Your task to perform on an android device: check the backup settings in the google photos Image 0: 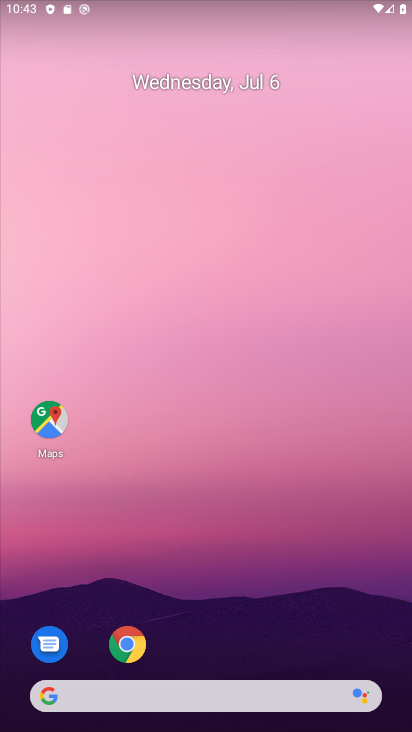
Step 0: drag from (264, 646) to (179, 54)
Your task to perform on an android device: check the backup settings in the google photos Image 1: 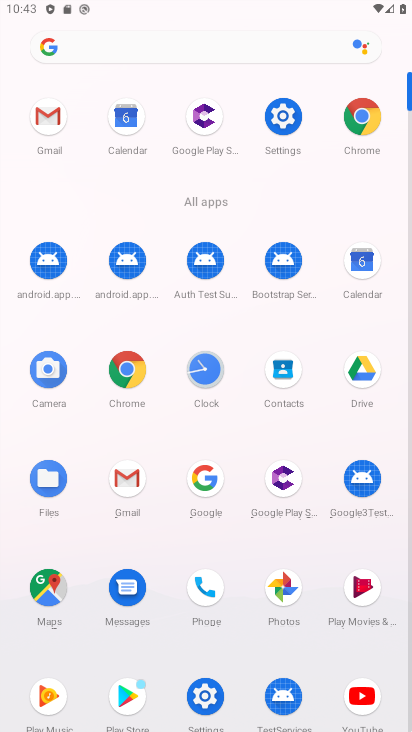
Step 1: click (290, 577)
Your task to perform on an android device: check the backup settings in the google photos Image 2: 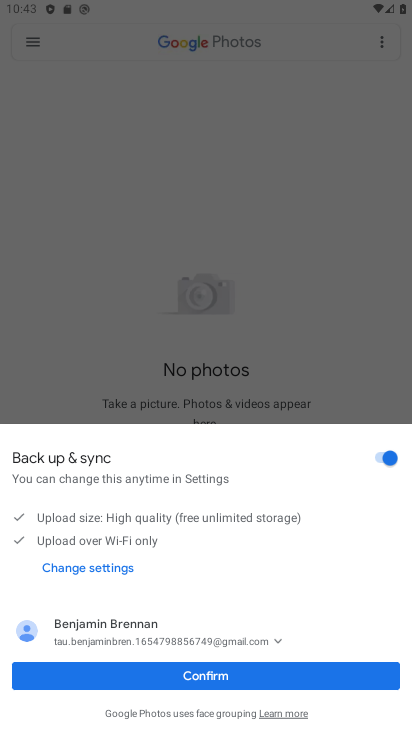
Step 2: click (245, 676)
Your task to perform on an android device: check the backup settings in the google photos Image 3: 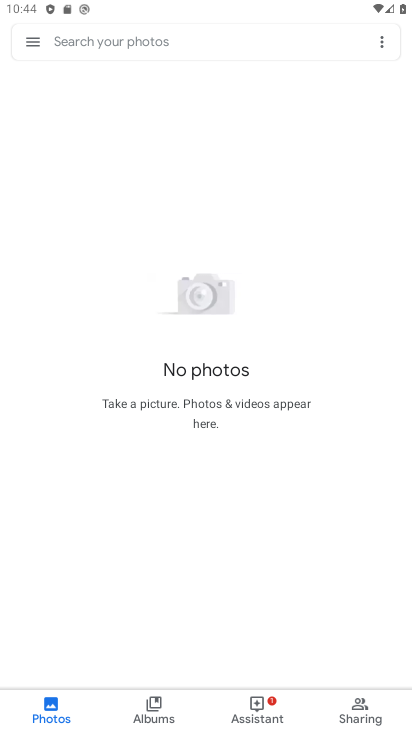
Step 3: click (32, 47)
Your task to perform on an android device: check the backup settings in the google photos Image 4: 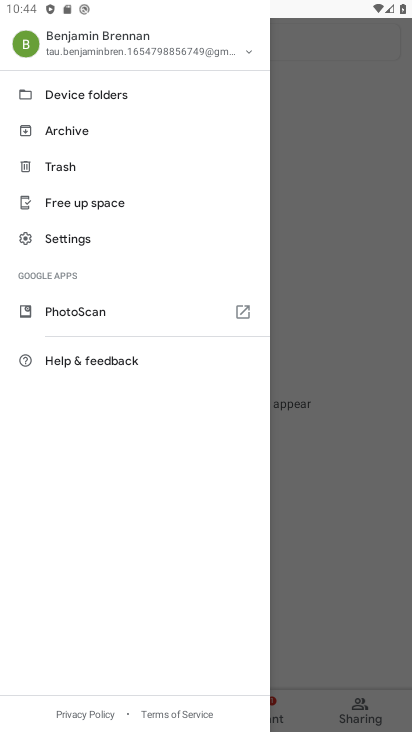
Step 4: click (95, 242)
Your task to perform on an android device: check the backup settings in the google photos Image 5: 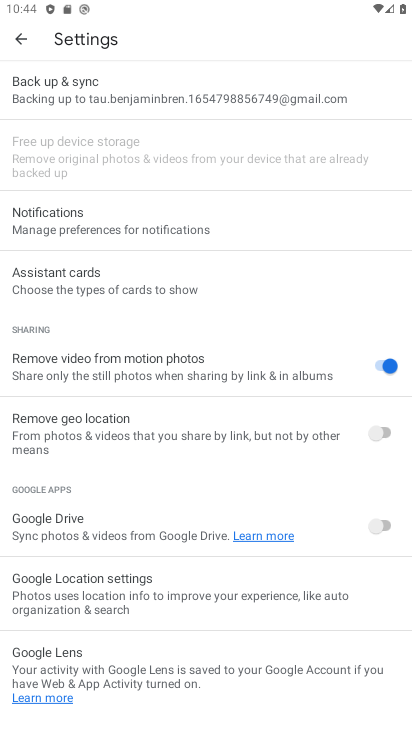
Step 5: click (117, 97)
Your task to perform on an android device: check the backup settings in the google photos Image 6: 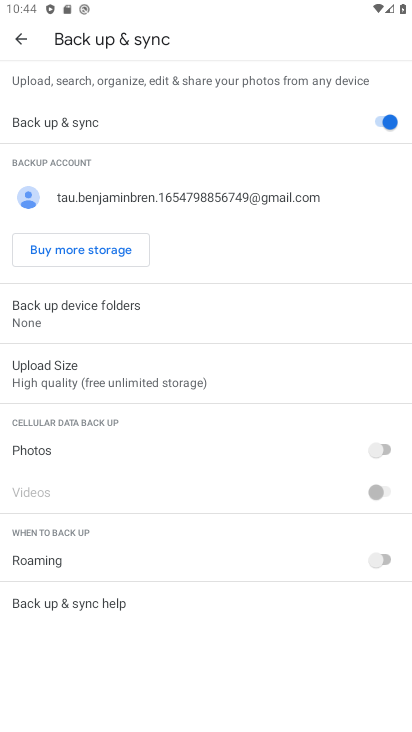
Step 6: task complete